Your task to perform on an android device: check battery use Image 0: 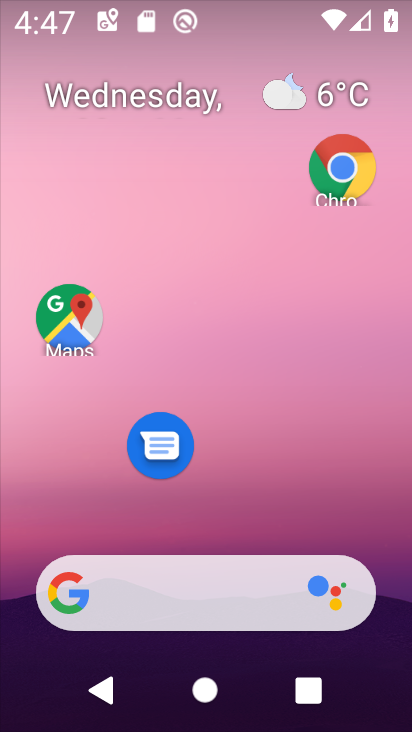
Step 0: drag from (213, 540) to (252, 57)
Your task to perform on an android device: check battery use Image 1: 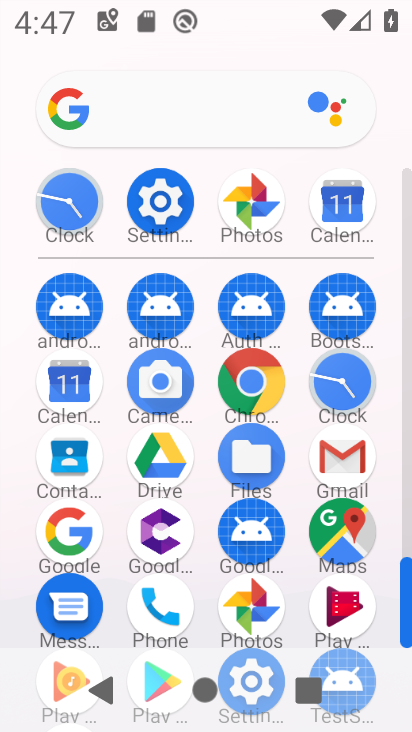
Step 1: click (163, 217)
Your task to perform on an android device: check battery use Image 2: 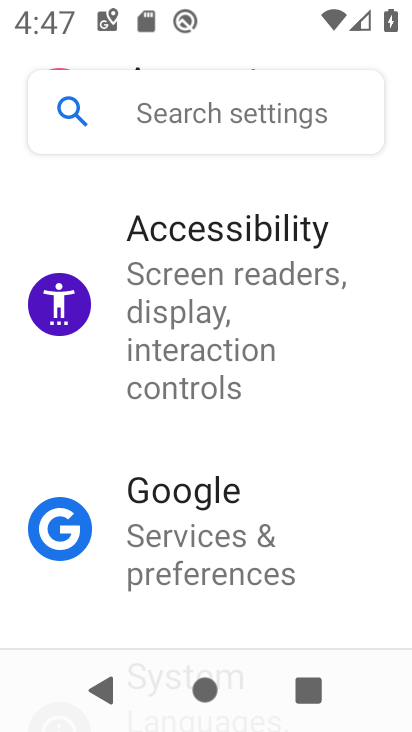
Step 2: drag from (196, 496) to (238, 206)
Your task to perform on an android device: check battery use Image 3: 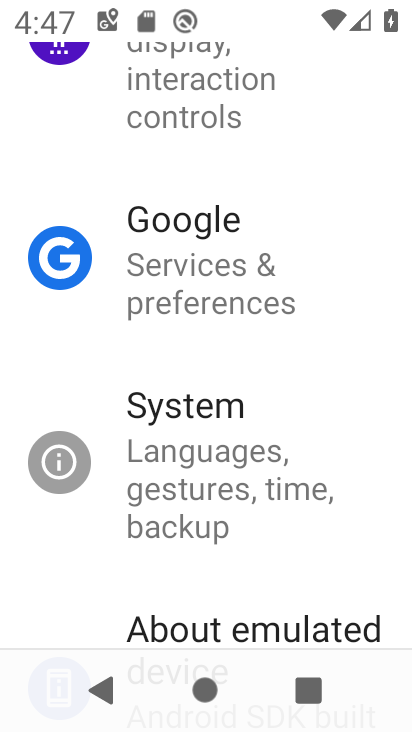
Step 3: drag from (225, 261) to (217, 631)
Your task to perform on an android device: check battery use Image 4: 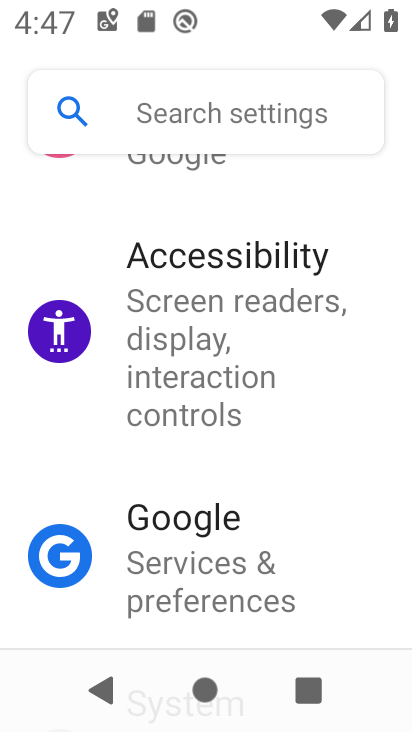
Step 4: drag from (207, 336) to (216, 679)
Your task to perform on an android device: check battery use Image 5: 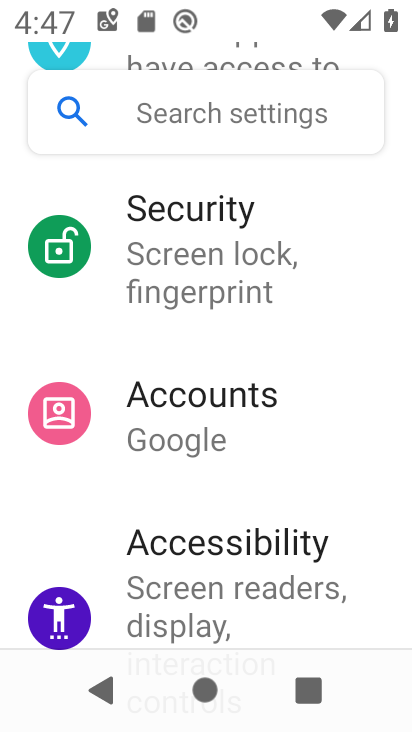
Step 5: drag from (226, 322) to (206, 714)
Your task to perform on an android device: check battery use Image 6: 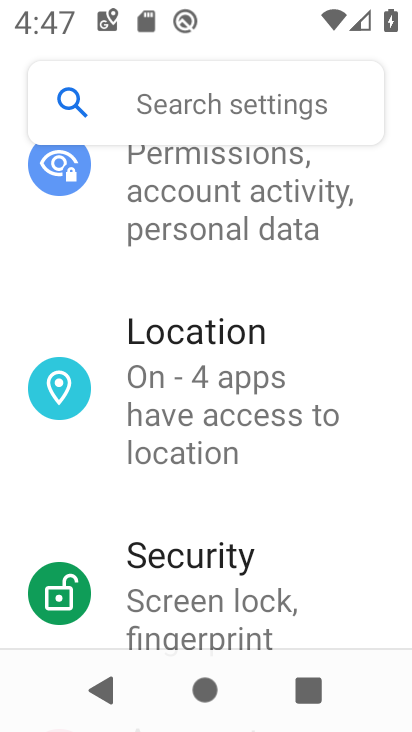
Step 6: drag from (248, 263) to (232, 687)
Your task to perform on an android device: check battery use Image 7: 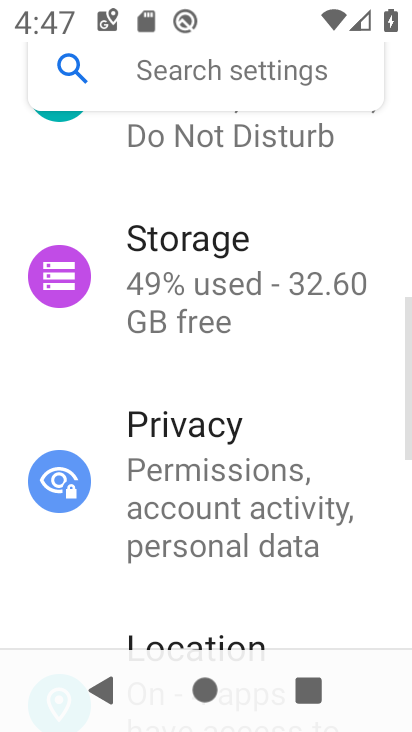
Step 7: drag from (242, 536) to (244, 613)
Your task to perform on an android device: check battery use Image 8: 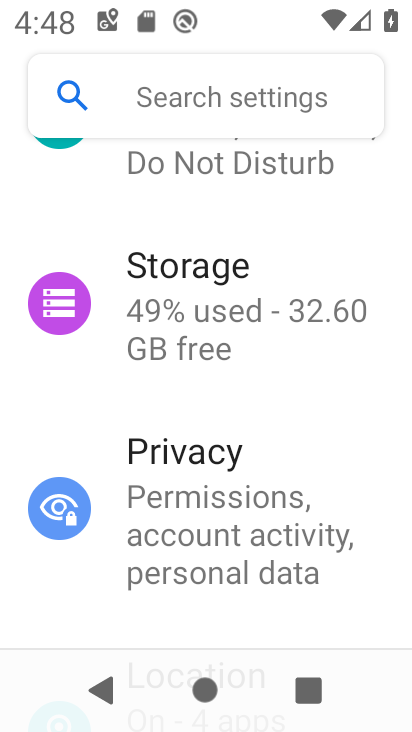
Step 8: drag from (217, 235) to (187, 438)
Your task to perform on an android device: check battery use Image 9: 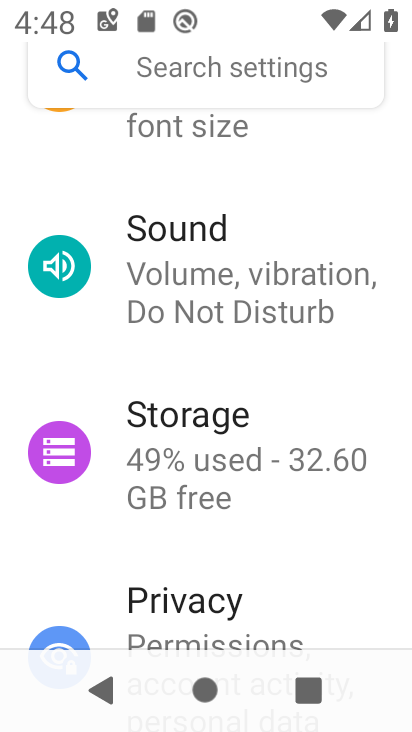
Step 9: drag from (180, 195) to (230, 565)
Your task to perform on an android device: check battery use Image 10: 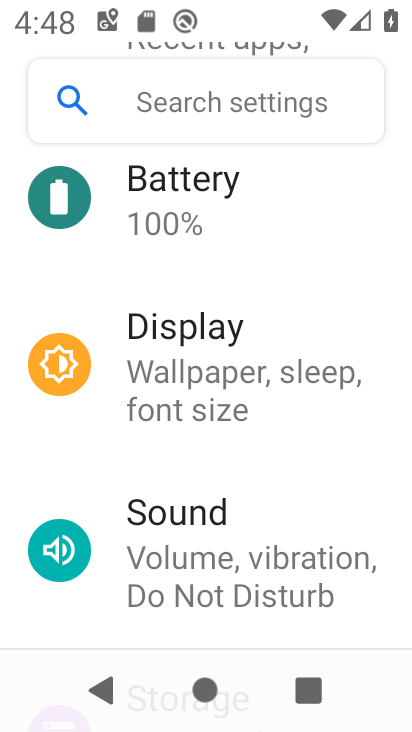
Step 10: drag from (220, 226) to (234, 696)
Your task to perform on an android device: check battery use Image 11: 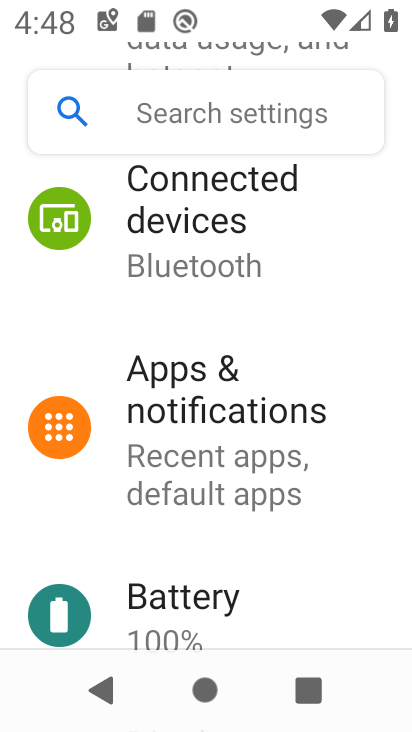
Step 11: drag from (288, 333) to (283, 678)
Your task to perform on an android device: check battery use Image 12: 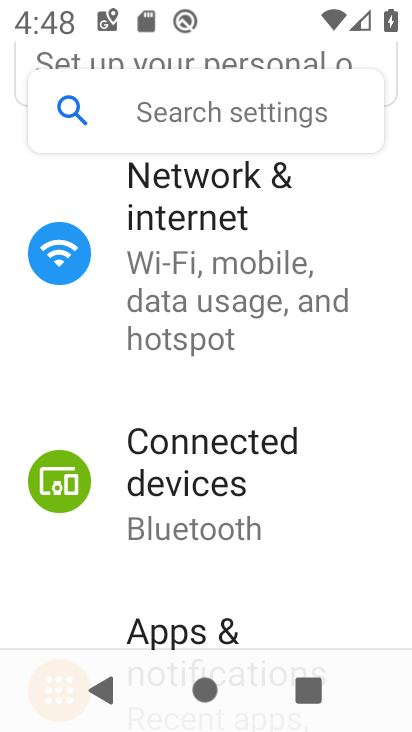
Step 12: drag from (270, 342) to (269, 660)
Your task to perform on an android device: check battery use Image 13: 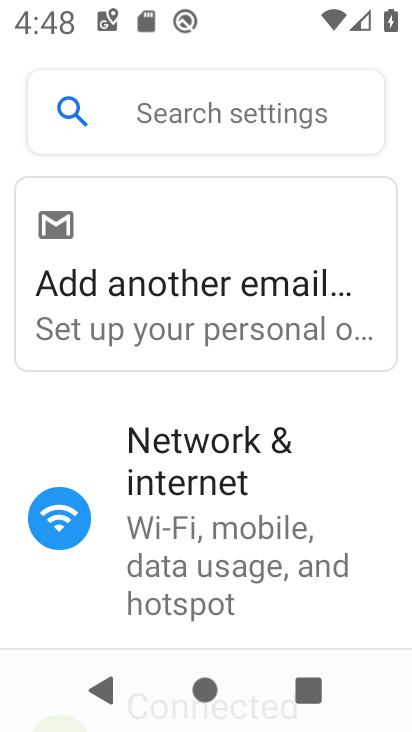
Step 13: drag from (233, 575) to (293, 118)
Your task to perform on an android device: check battery use Image 14: 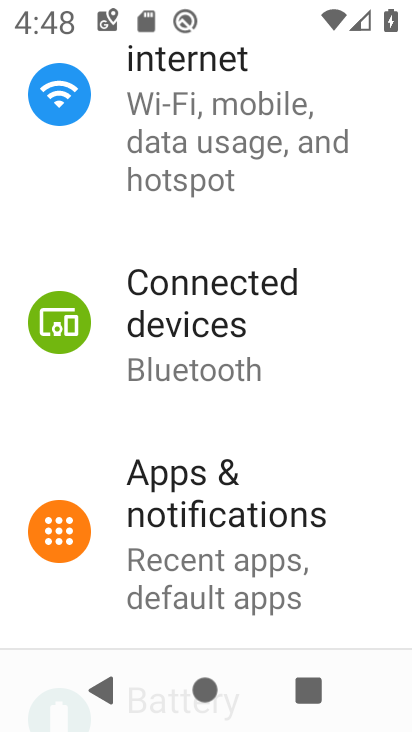
Step 14: drag from (268, 510) to (316, 51)
Your task to perform on an android device: check battery use Image 15: 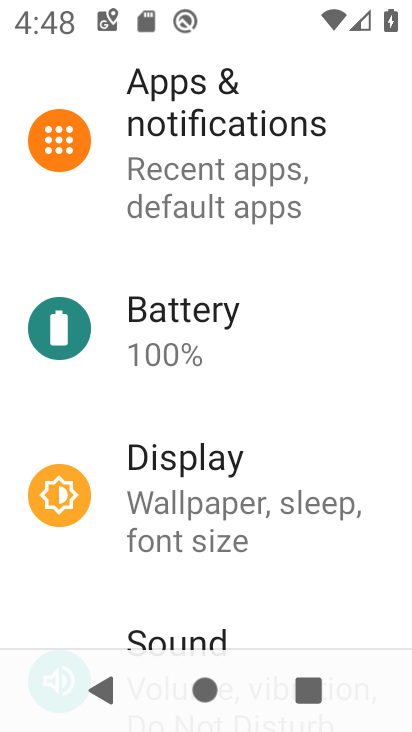
Step 15: click (185, 359)
Your task to perform on an android device: check battery use Image 16: 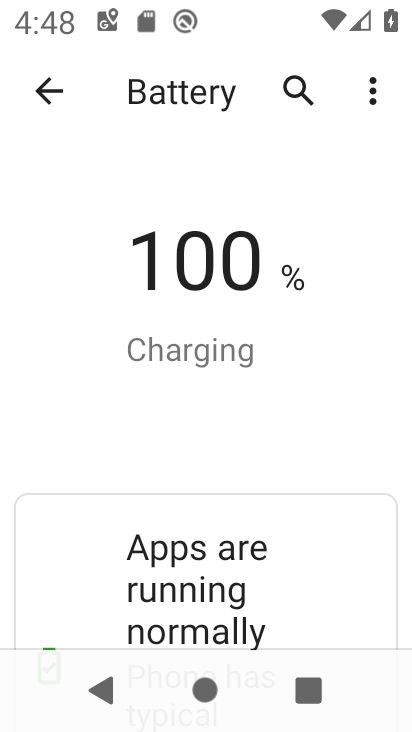
Step 16: click (365, 94)
Your task to perform on an android device: check battery use Image 17: 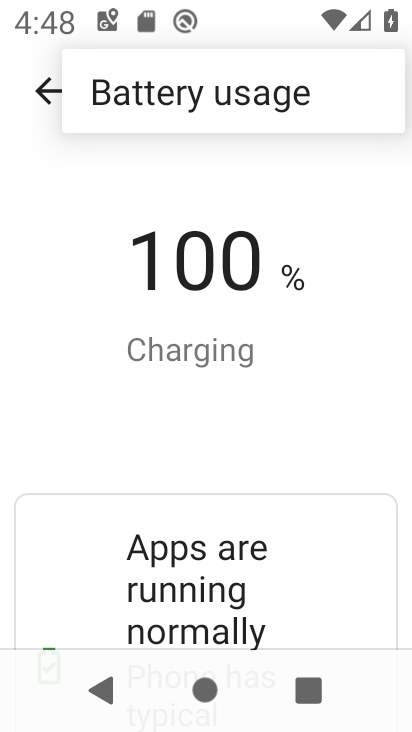
Step 17: click (268, 89)
Your task to perform on an android device: check battery use Image 18: 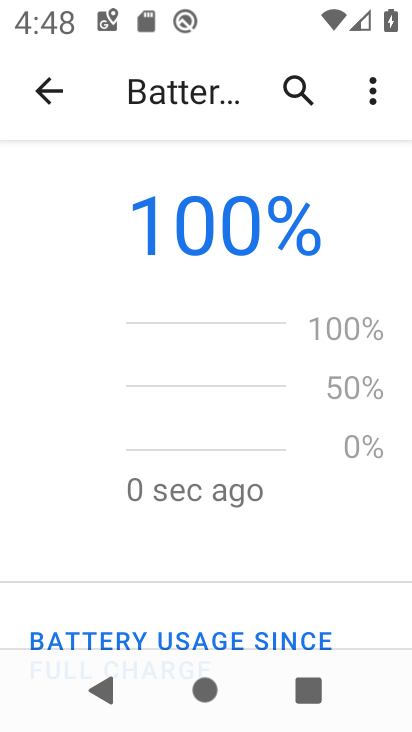
Step 18: task complete